Your task to perform on an android device: What is the recent news? Image 0: 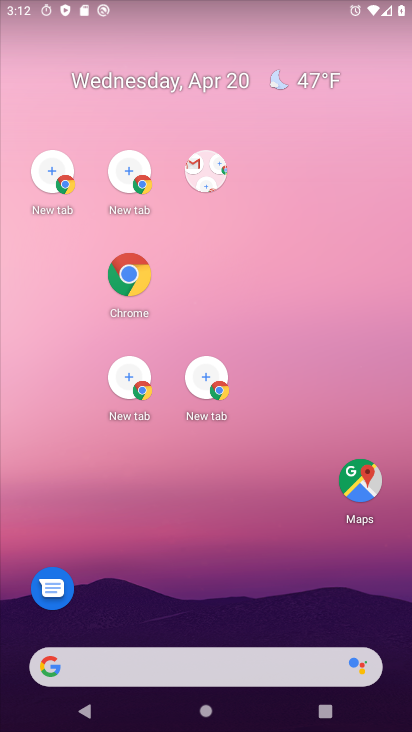
Step 0: click (131, 271)
Your task to perform on an android device: What is the recent news? Image 1: 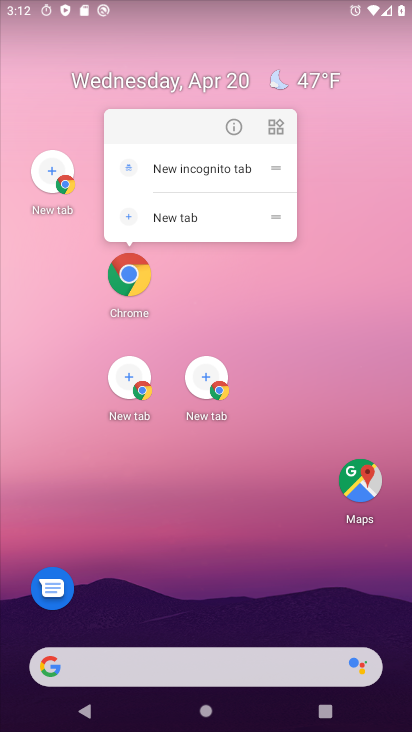
Step 1: click (132, 268)
Your task to perform on an android device: What is the recent news? Image 2: 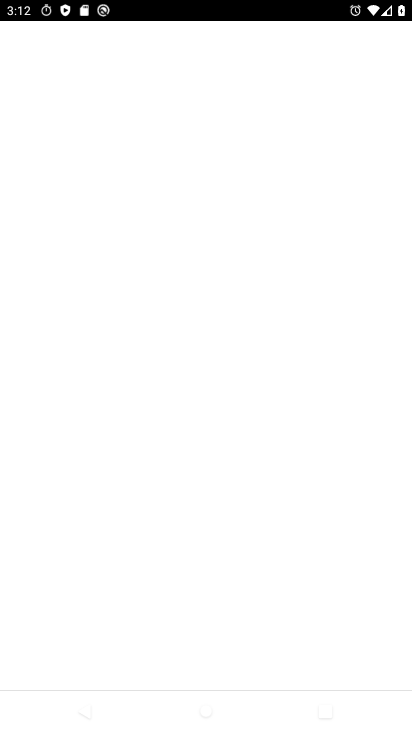
Step 2: click (155, 212)
Your task to perform on an android device: What is the recent news? Image 3: 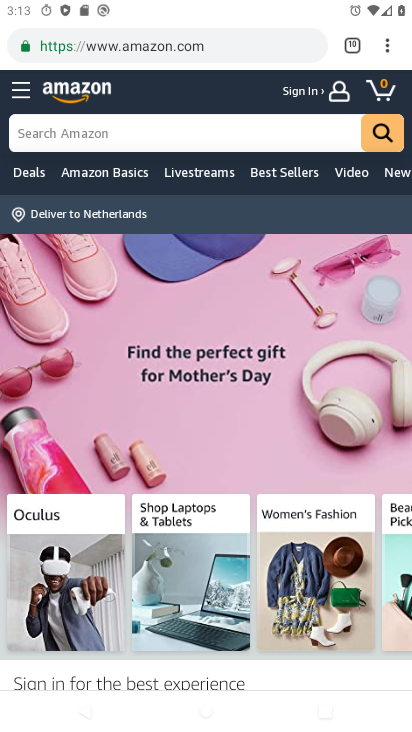
Step 3: drag from (389, 44) to (240, 142)
Your task to perform on an android device: What is the recent news? Image 4: 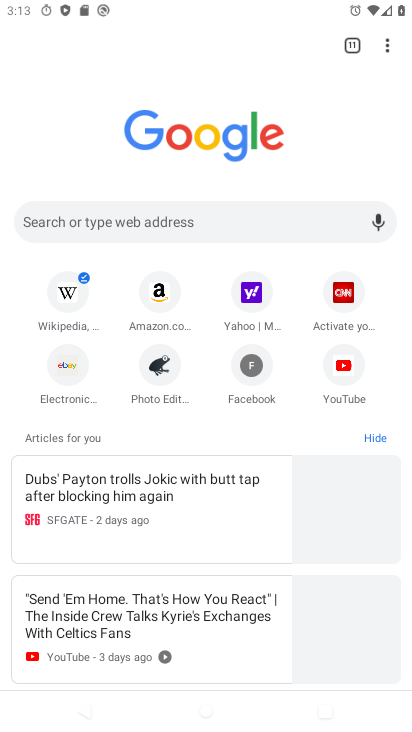
Step 4: click (242, 143)
Your task to perform on an android device: What is the recent news? Image 5: 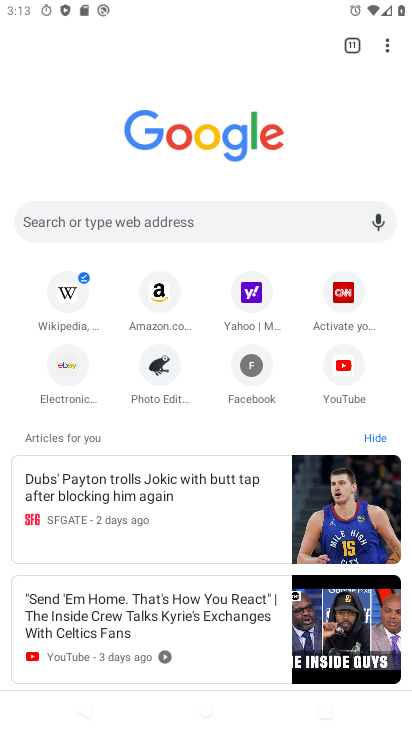
Step 5: task complete